Your task to perform on an android device: all mails in gmail Image 0: 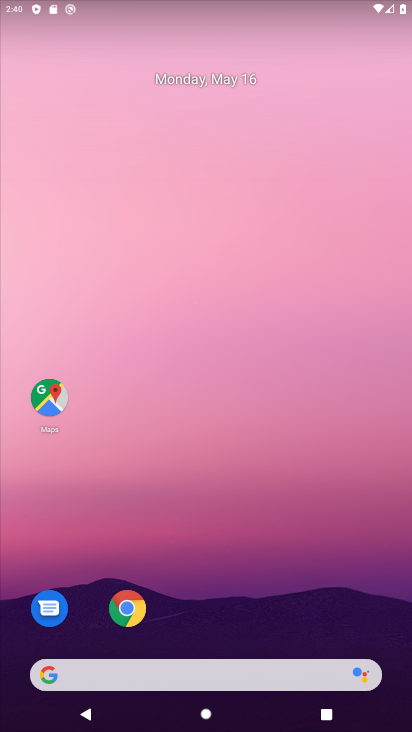
Step 0: drag from (280, 513) to (292, 55)
Your task to perform on an android device: all mails in gmail Image 1: 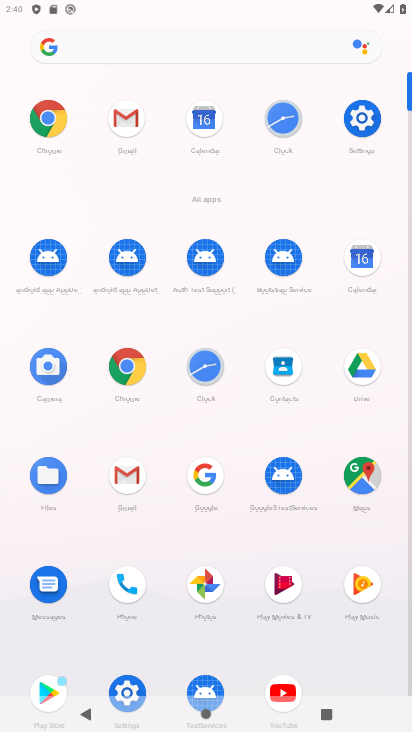
Step 1: click (124, 119)
Your task to perform on an android device: all mails in gmail Image 2: 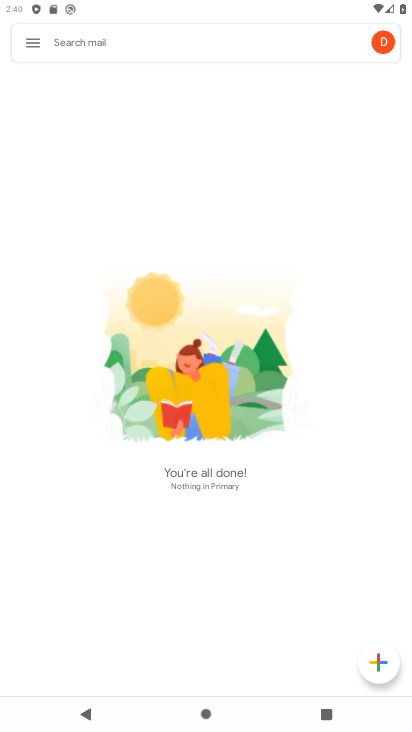
Step 2: click (33, 47)
Your task to perform on an android device: all mails in gmail Image 3: 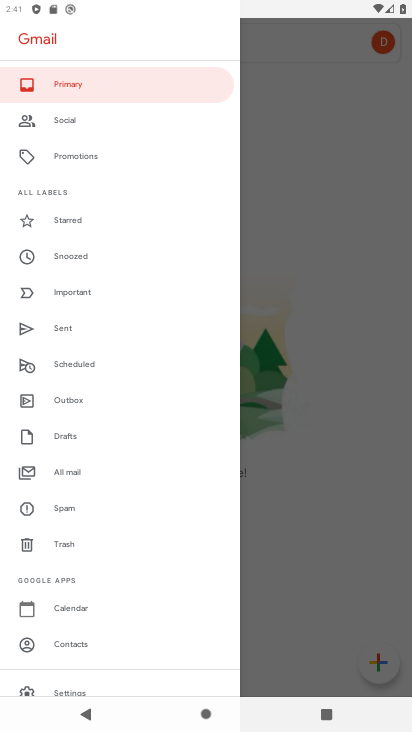
Step 3: drag from (89, 422) to (119, 367)
Your task to perform on an android device: all mails in gmail Image 4: 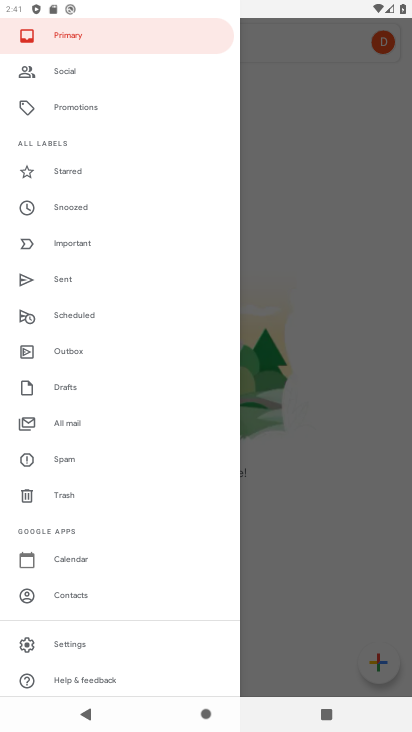
Step 4: click (60, 415)
Your task to perform on an android device: all mails in gmail Image 5: 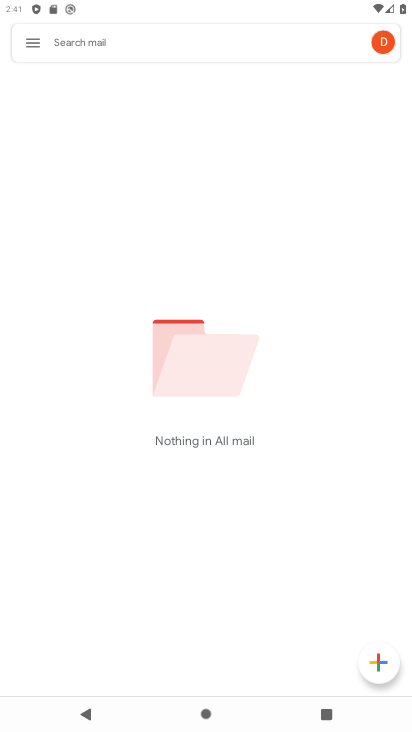
Step 5: task complete